Your task to perform on an android device: turn off priority inbox in the gmail app Image 0: 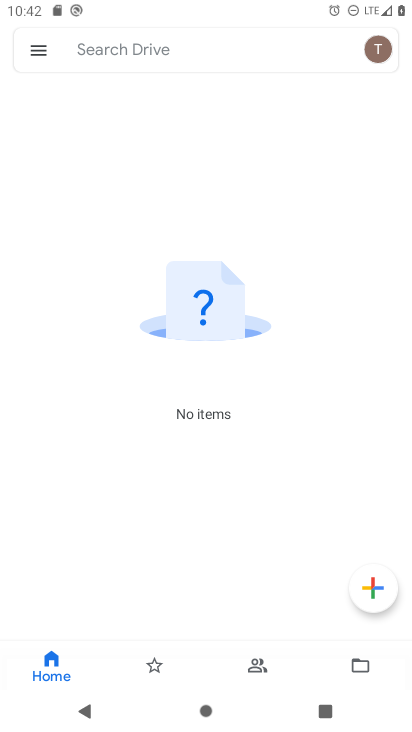
Step 0: click (43, 48)
Your task to perform on an android device: turn off priority inbox in the gmail app Image 1: 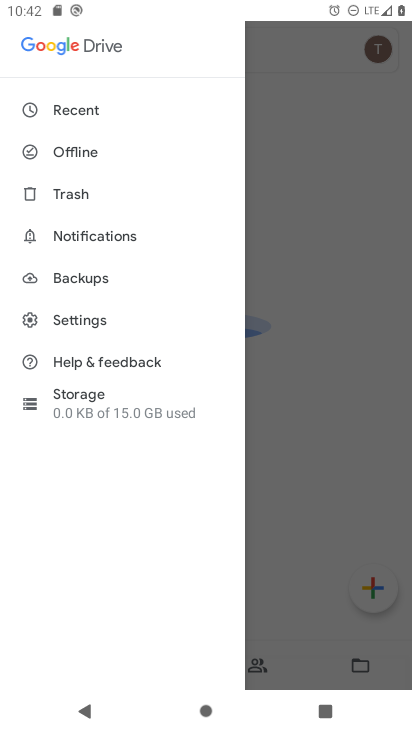
Step 1: press home button
Your task to perform on an android device: turn off priority inbox in the gmail app Image 2: 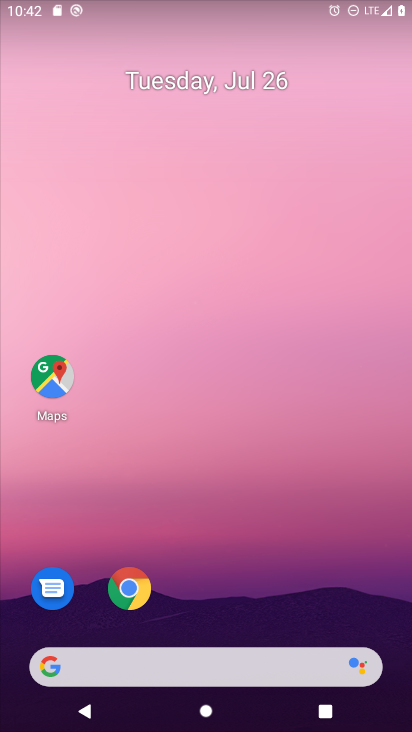
Step 2: drag from (169, 578) to (219, 23)
Your task to perform on an android device: turn off priority inbox in the gmail app Image 3: 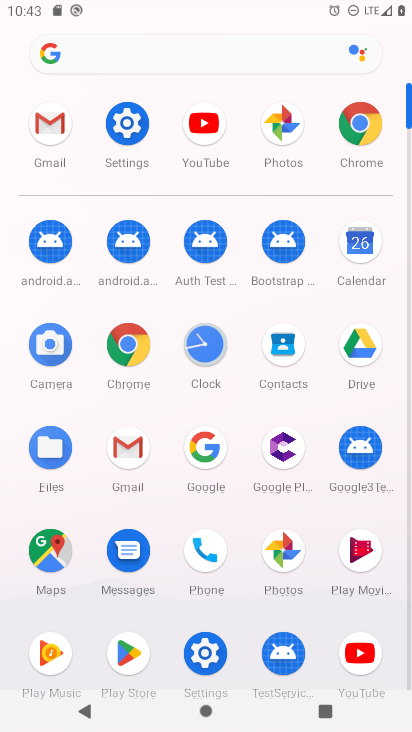
Step 3: click (135, 467)
Your task to perform on an android device: turn off priority inbox in the gmail app Image 4: 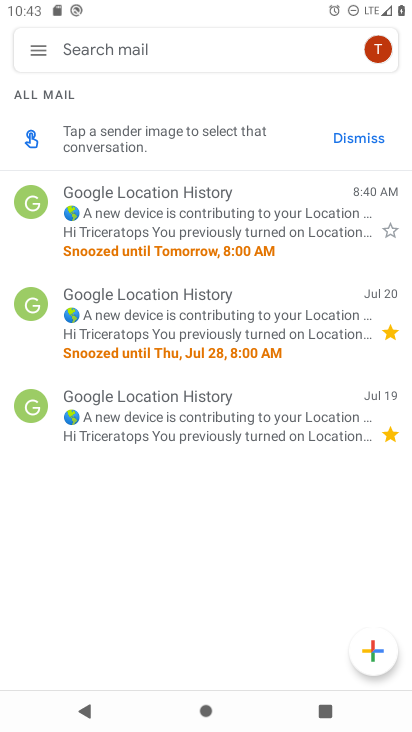
Step 4: click (38, 56)
Your task to perform on an android device: turn off priority inbox in the gmail app Image 5: 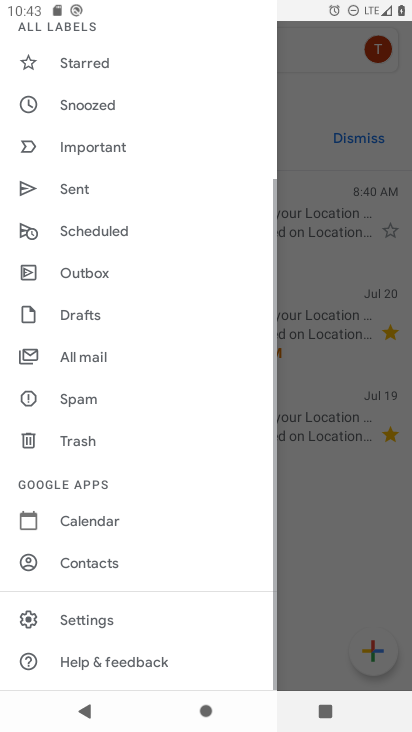
Step 5: click (39, 57)
Your task to perform on an android device: turn off priority inbox in the gmail app Image 6: 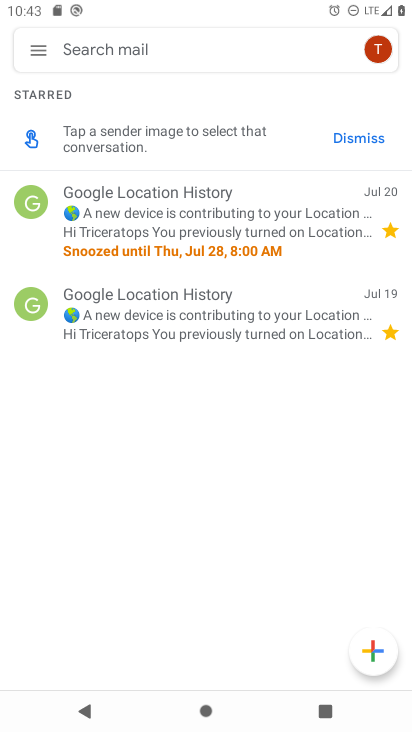
Step 6: click (39, 48)
Your task to perform on an android device: turn off priority inbox in the gmail app Image 7: 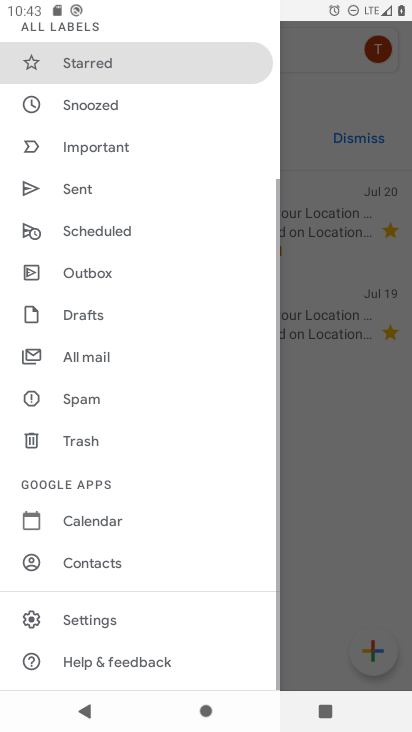
Step 7: click (96, 624)
Your task to perform on an android device: turn off priority inbox in the gmail app Image 8: 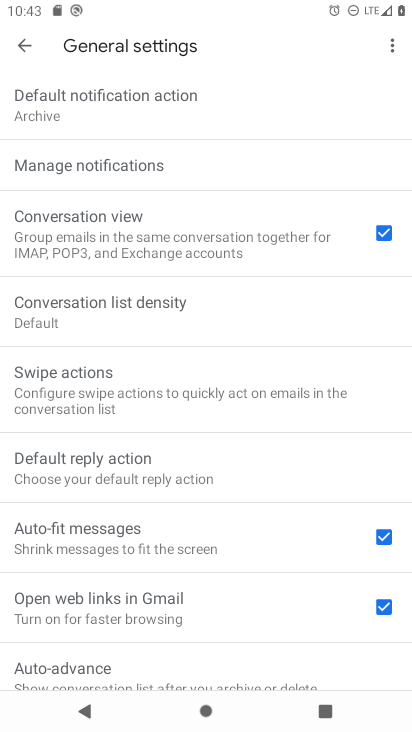
Step 8: click (8, 46)
Your task to perform on an android device: turn off priority inbox in the gmail app Image 9: 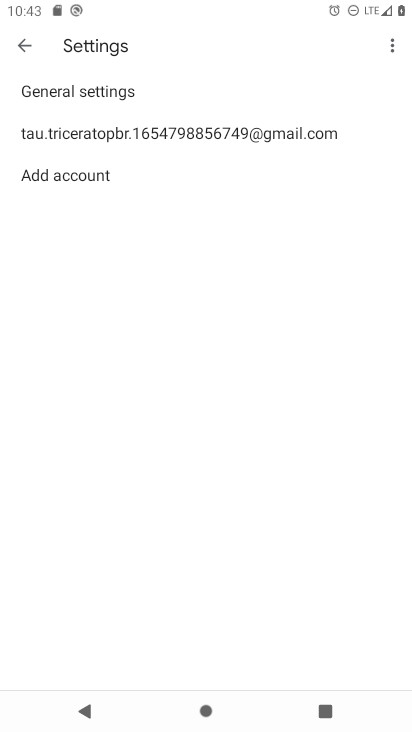
Step 9: click (169, 132)
Your task to perform on an android device: turn off priority inbox in the gmail app Image 10: 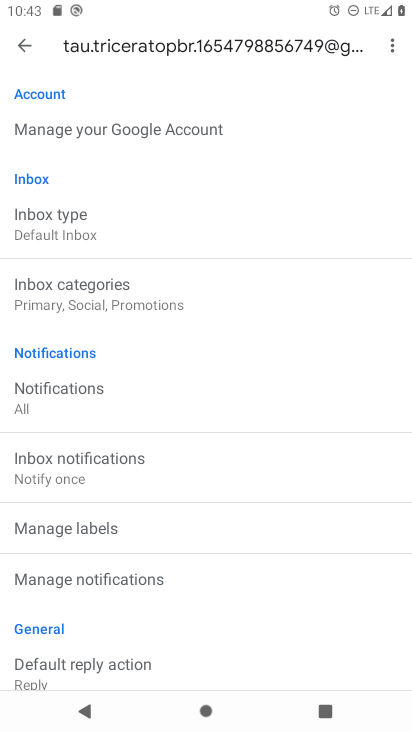
Step 10: click (68, 233)
Your task to perform on an android device: turn off priority inbox in the gmail app Image 11: 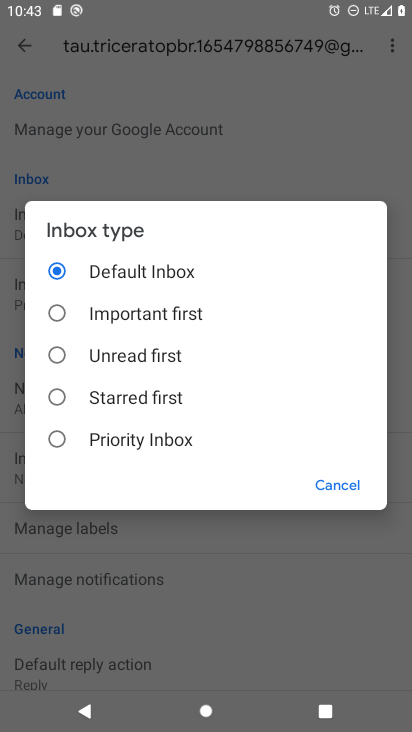
Step 11: task complete